Your task to perform on an android device: clear history in the chrome app Image 0: 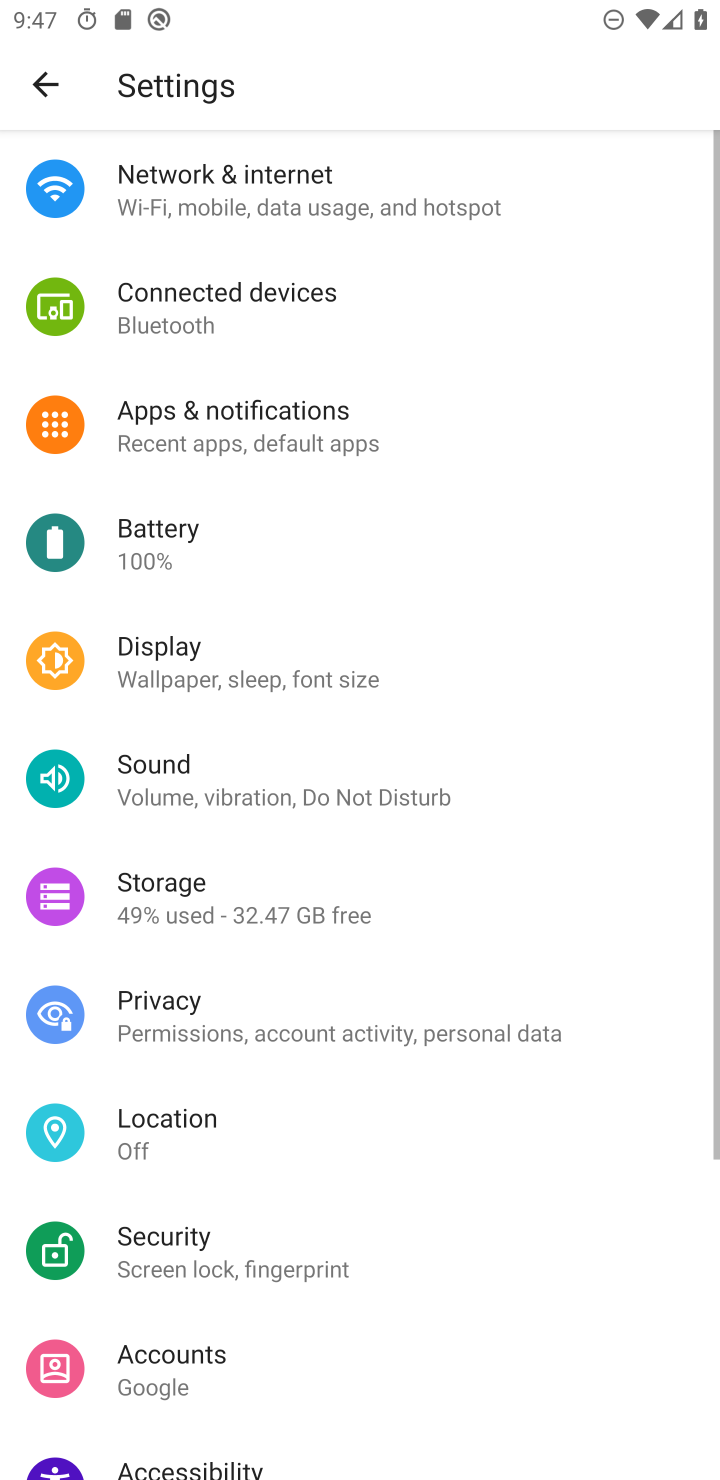
Step 0: press home button
Your task to perform on an android device: clear history in the chrome app Image 1: 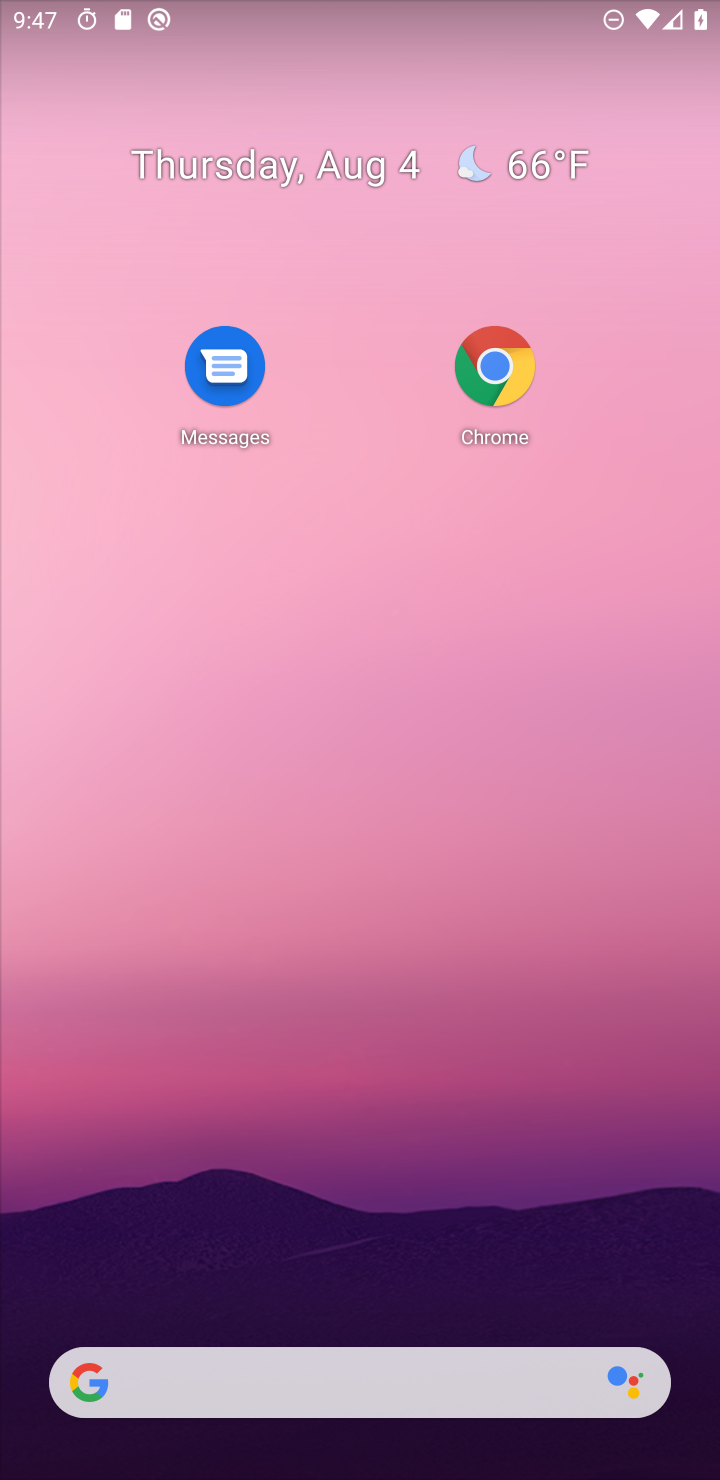
Step 1: press home button
Your task to perform on an android device: clear history in the chrome app Image 2: 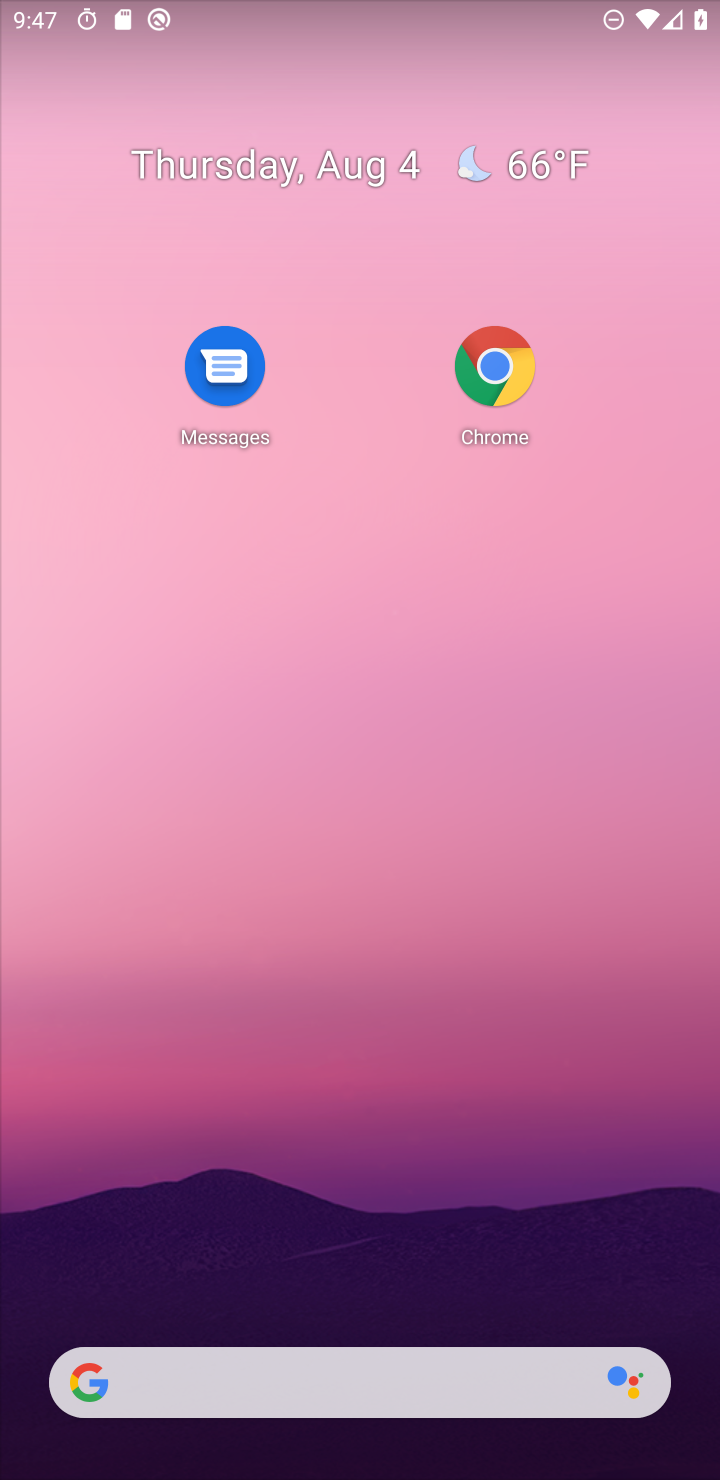
Step 2: drag from (458, 448) to (454, 327)
Your task to perform on an android device: clear history in the chrome app Image 3: 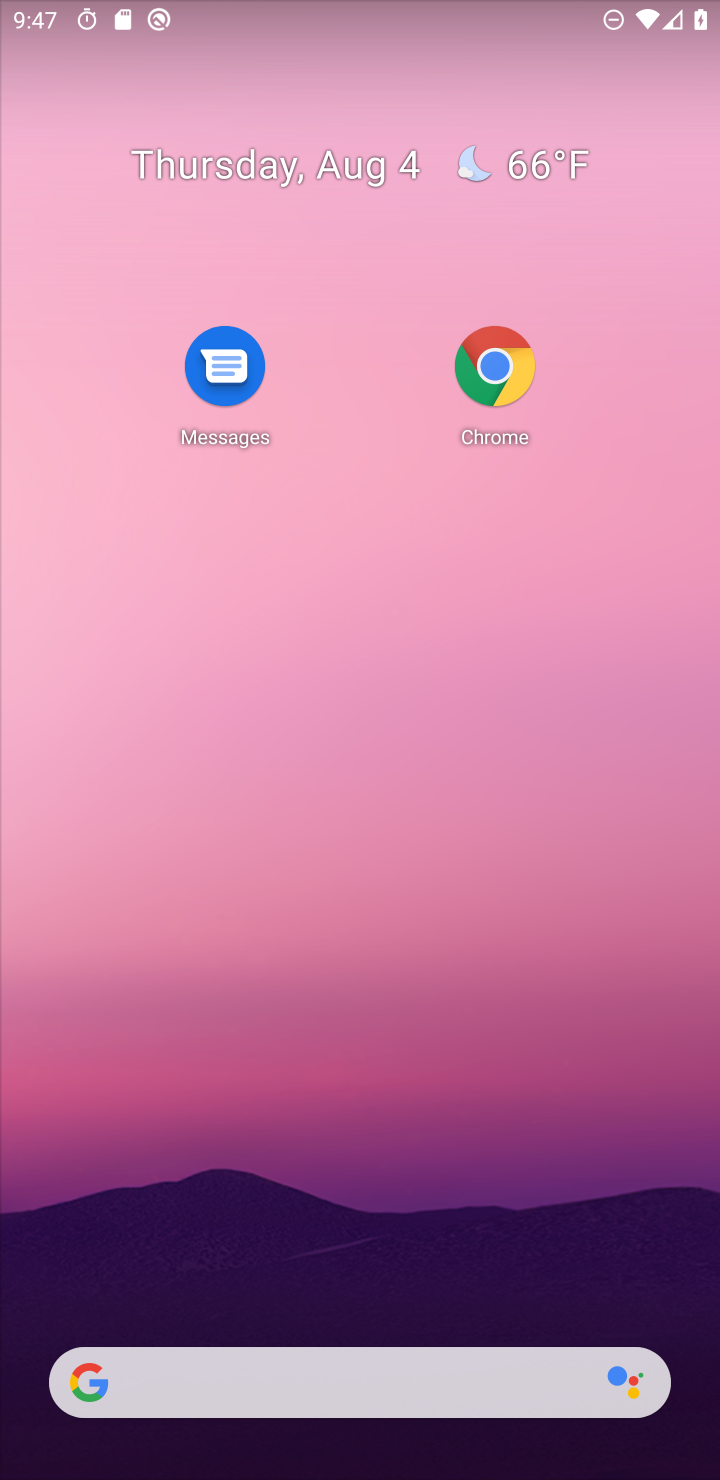
Step 3: drag from (306, 1438) to (394, 65)
Your task to perform on an android device: clear history in the chrome app Image 4: 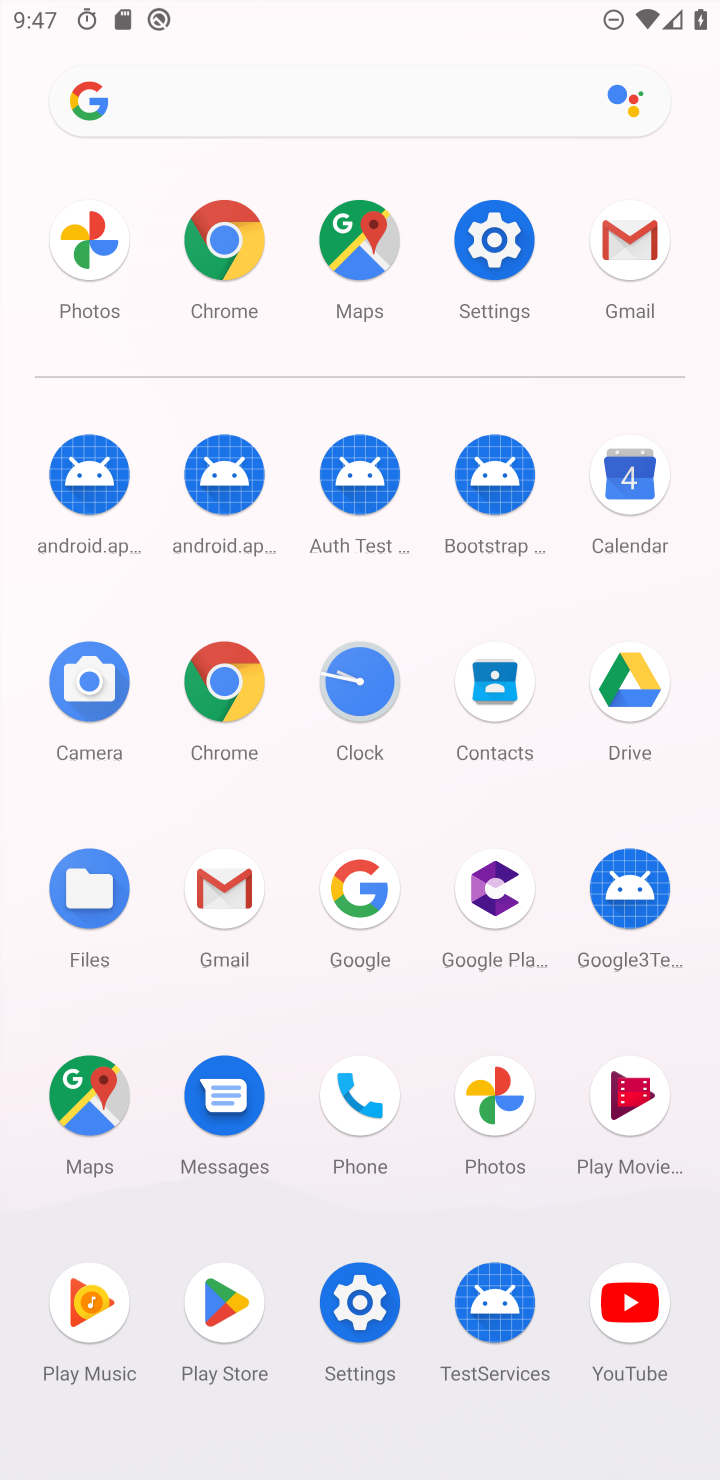
Step 4: click (251, 674)
Your task to perform on an android device: clear history in the chrome app Image 5: 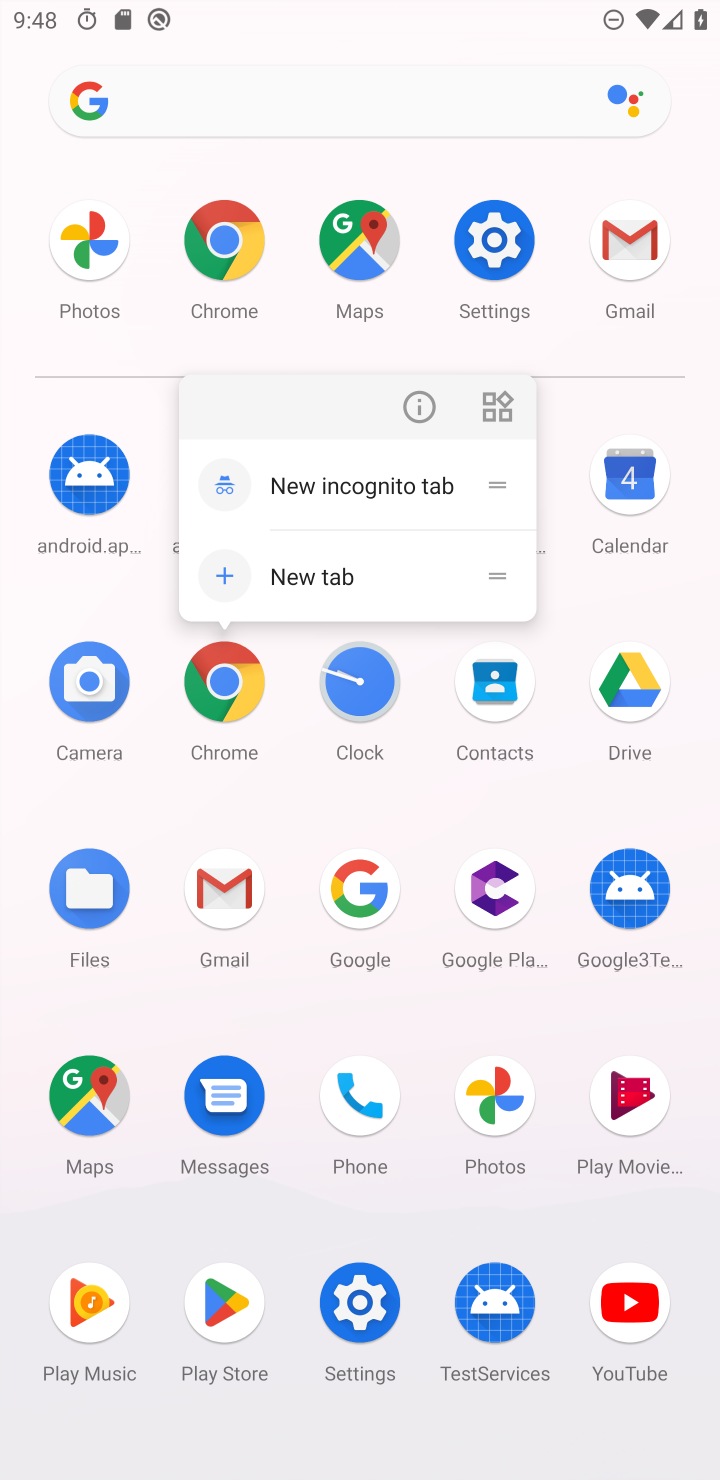
Step 5: click (225, 700)
Your task to perform on an android device: clear history in the chrome app Image 6: 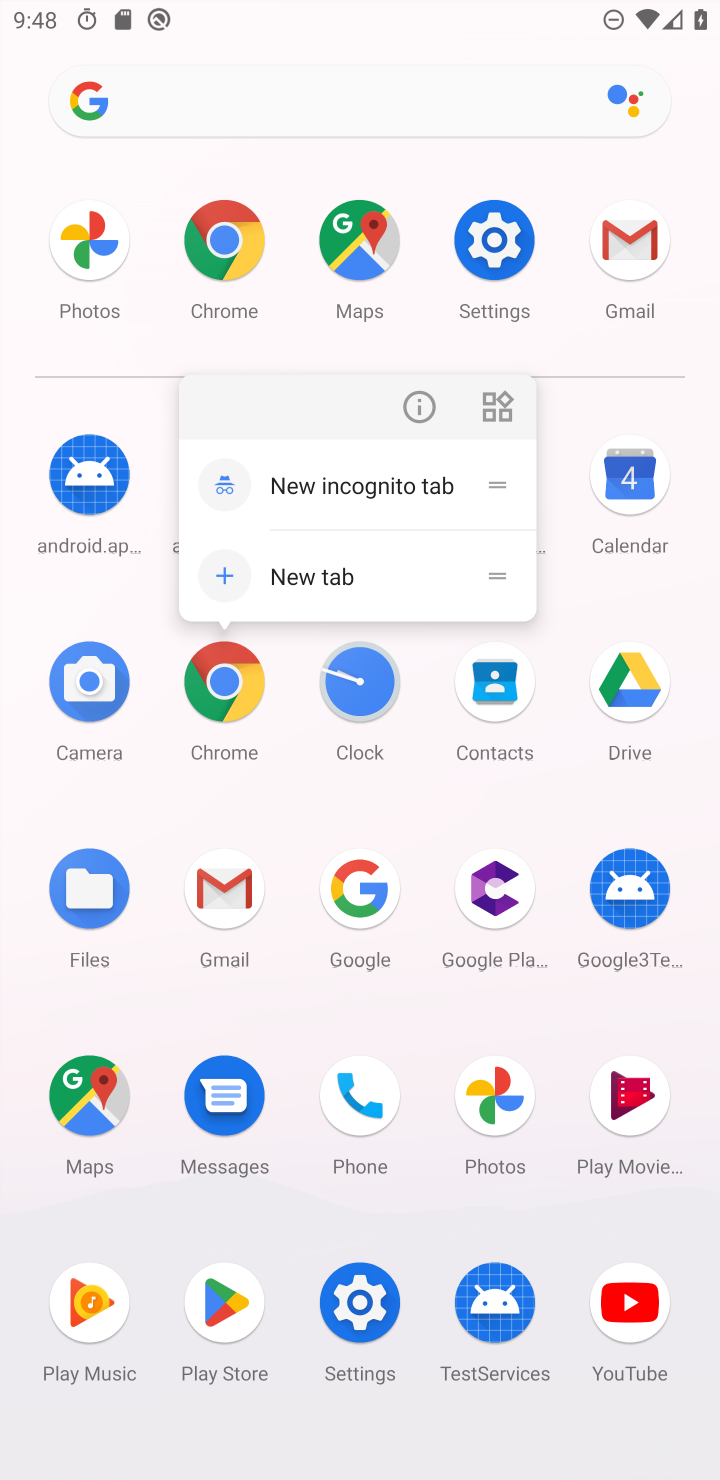
Step 6: click (227, 680)
Your task to perform on an android device: clear history in the chrome app Image 7: 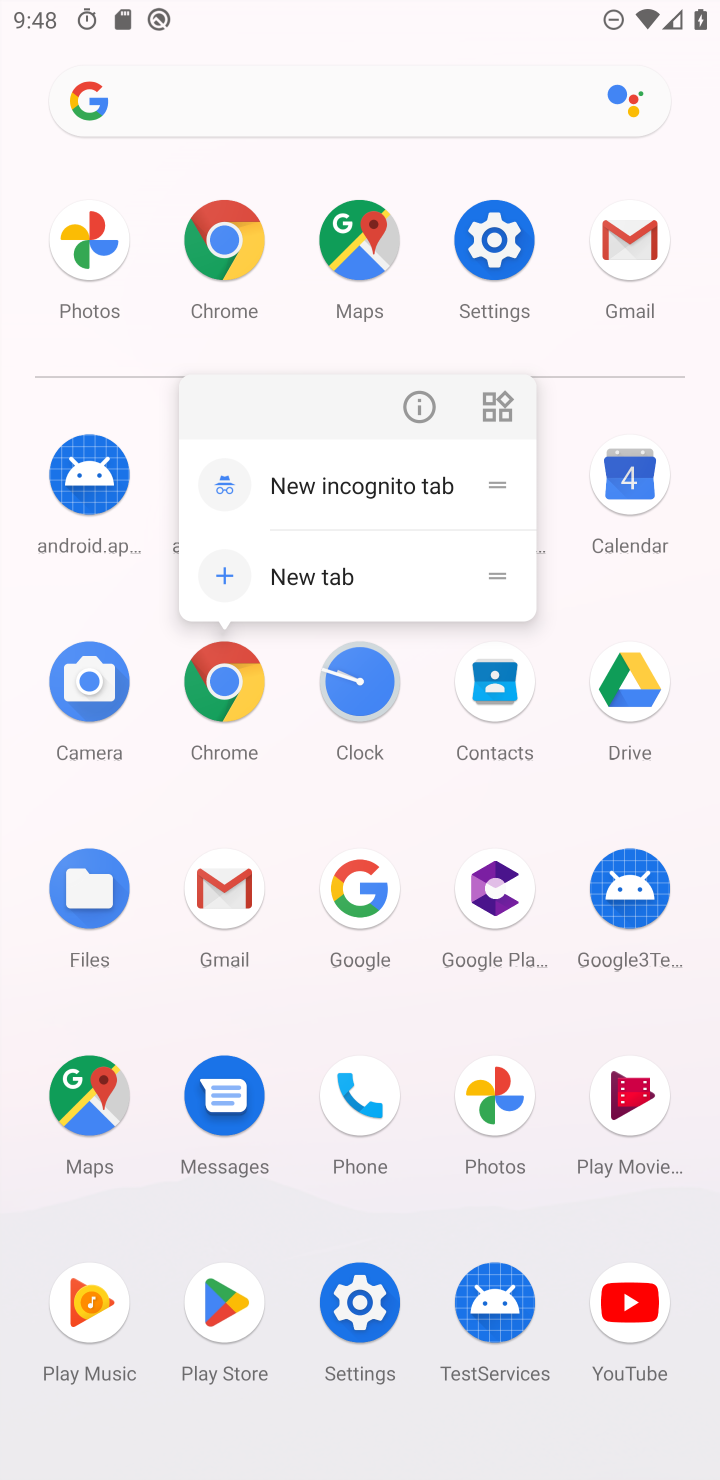
Step 7: click (227, 680)
Your task to perform on an android device: clear history in the chrome app Image 8: 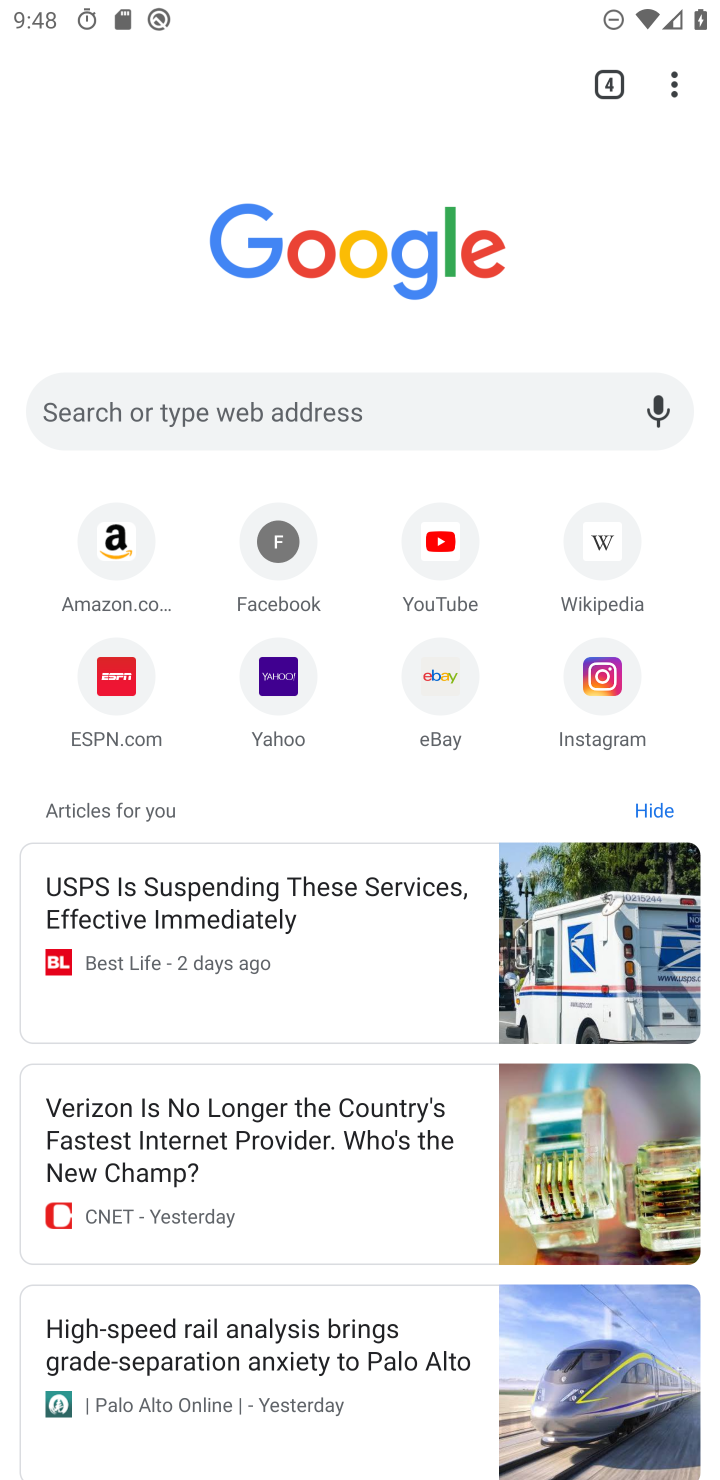
Step 8: click (669, 80)
Your task to perform on an android device: clear history in the chrome app Image 9: 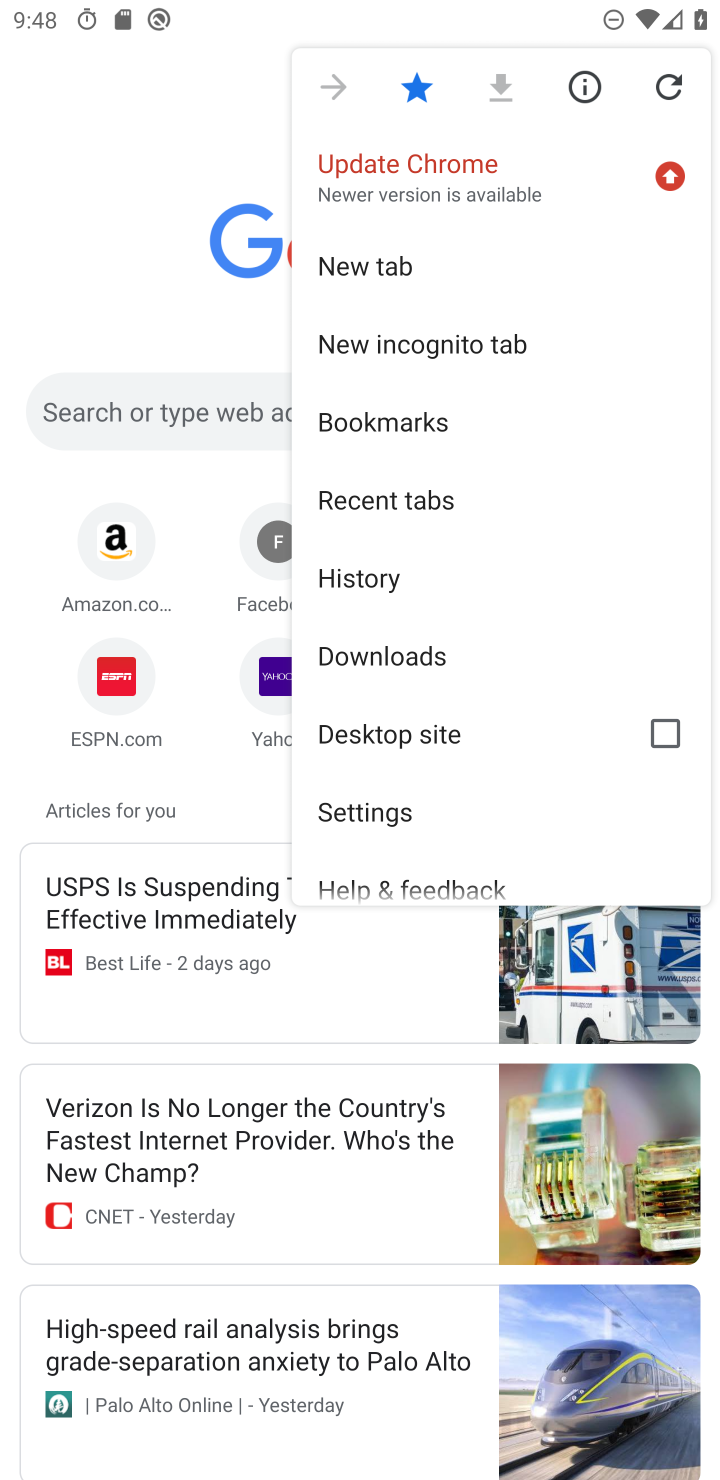
Step 9: click (391, 590)
Your task to perform on an android device: clear history in the chrome app Image 10: 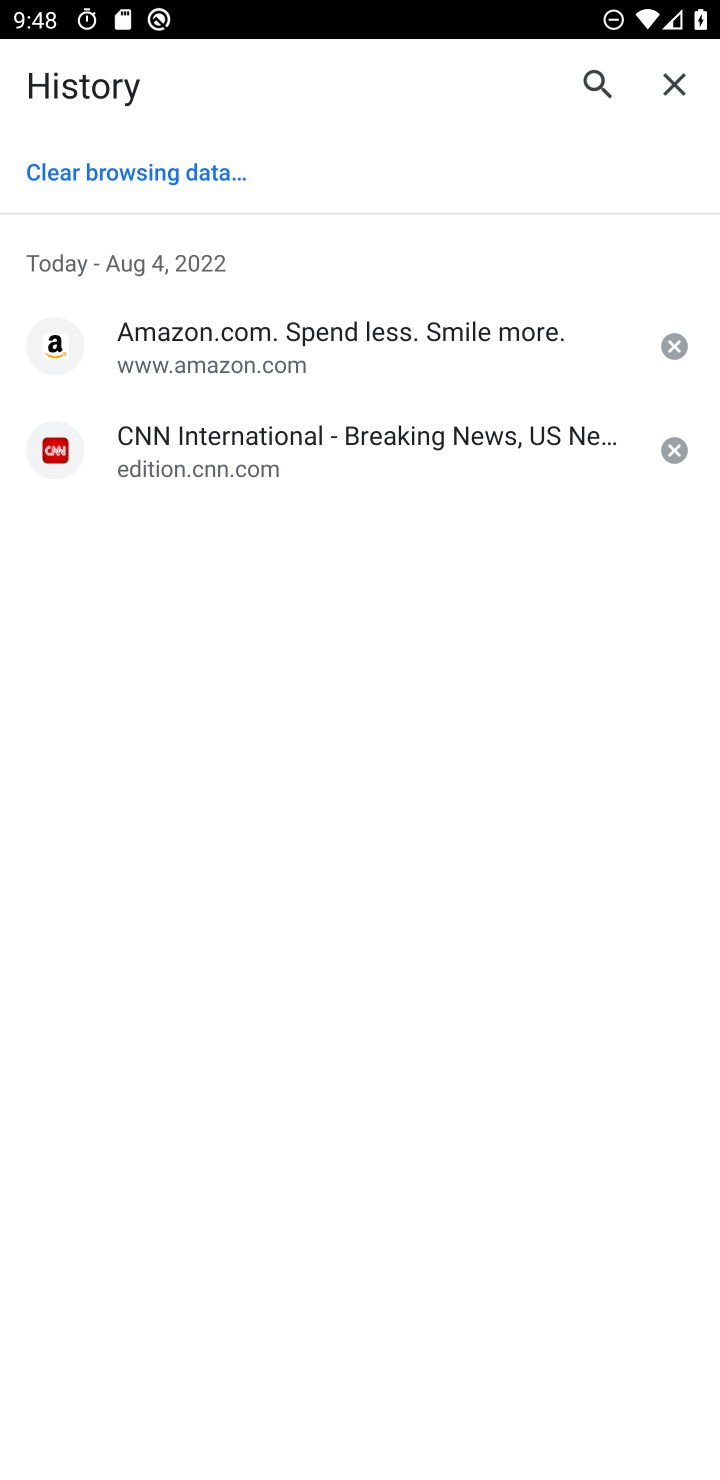
Step 10: click (111, 186)
Your task to perform on an android device: clear history in the chrome app Image 11: 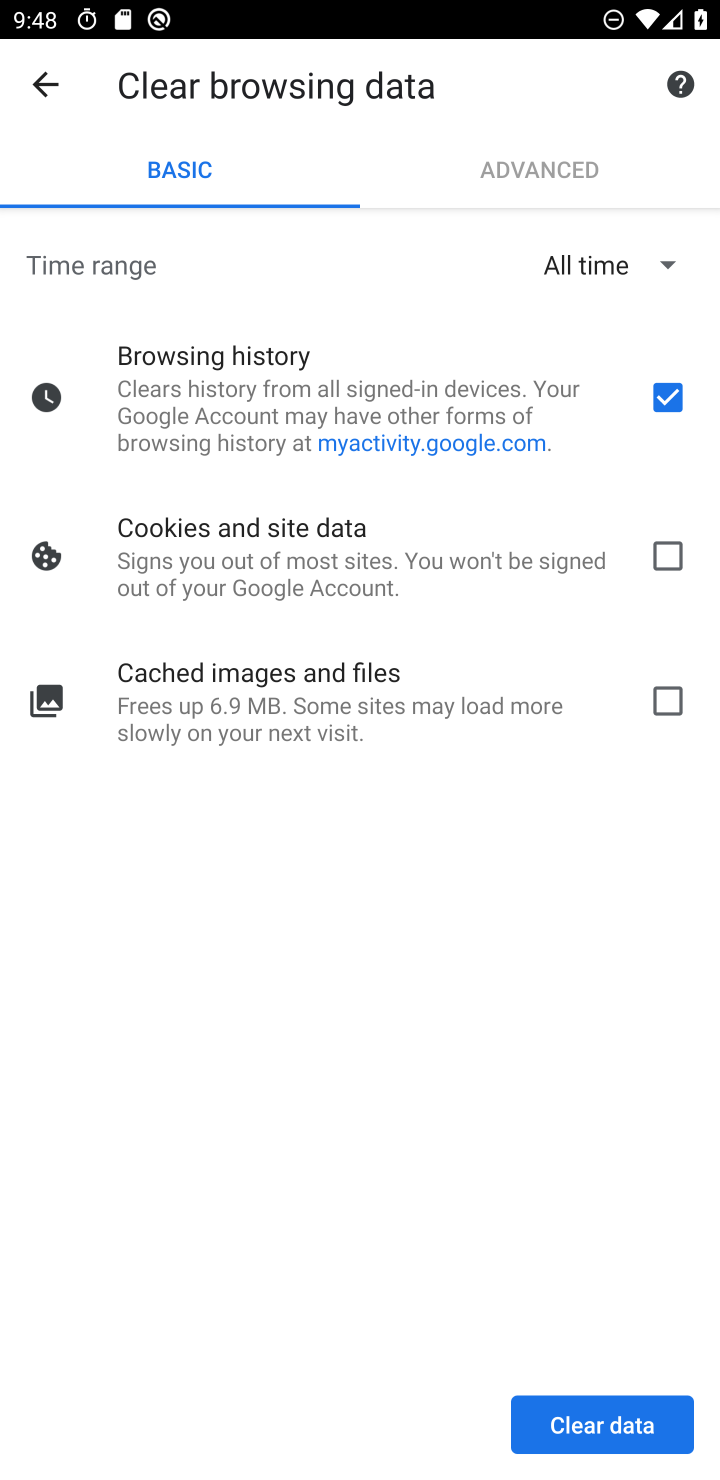
Step 11: click (591, 1414)
Your task to perform on an android device: clear history in the chrome app Image 12: 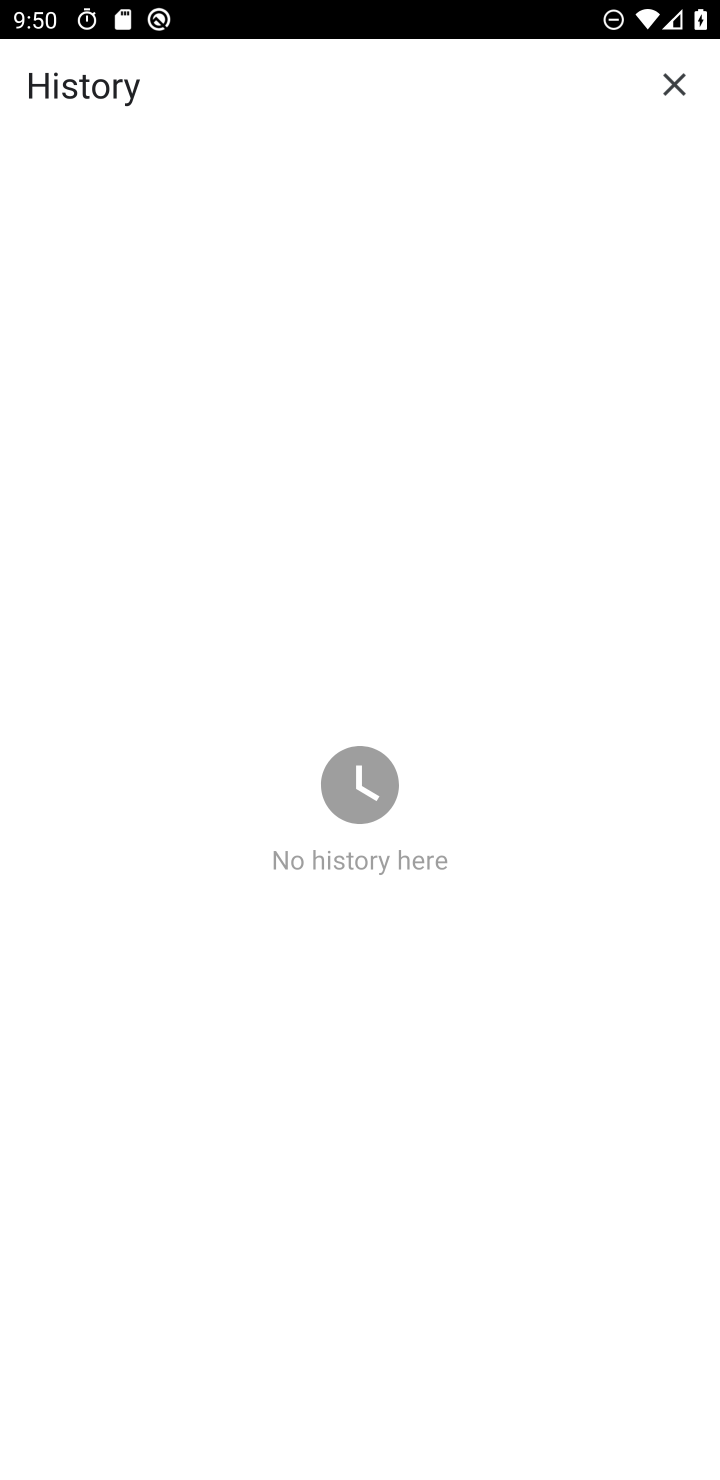
Step 12: task complete